Your task to perform on an android device: change timer sound Image 0: 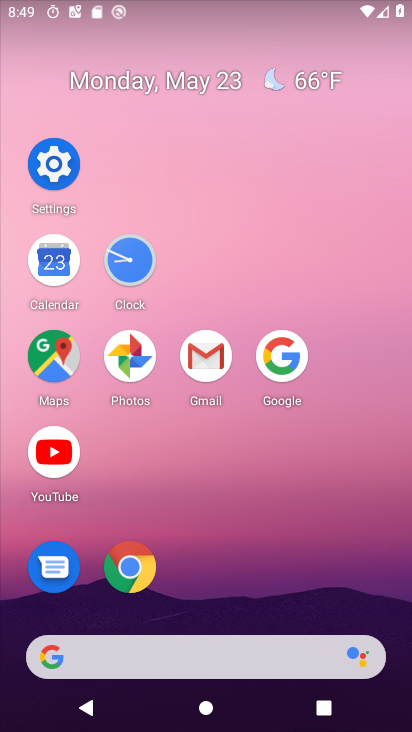
Step 0: click (145, 251)
Your task to perform on an android device: change timer sound Image 1: 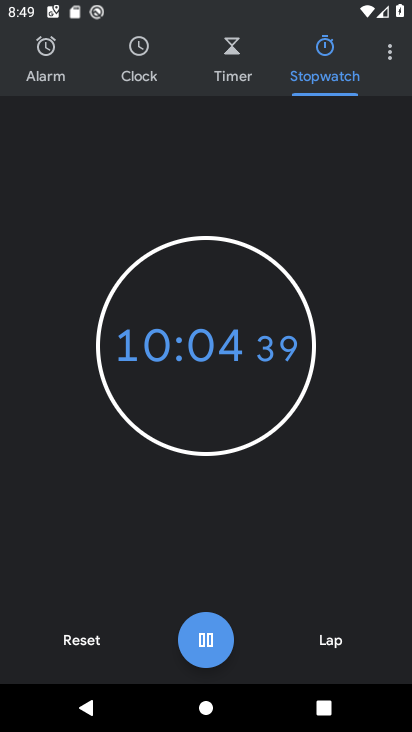
Step 1: click (390, 47)
Your task to perform on an android device: change timer sound Image 2: 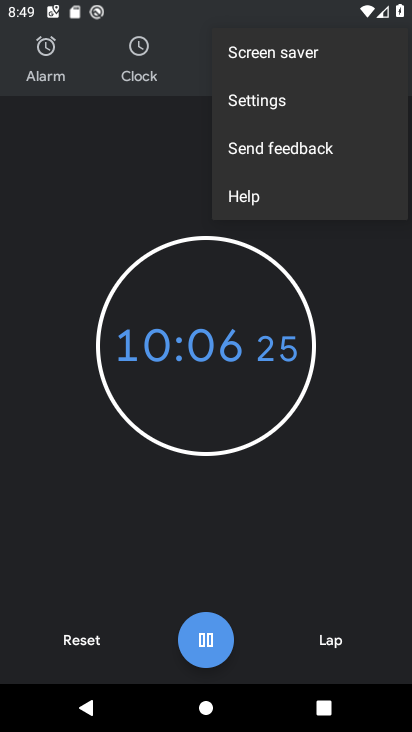
Step 2: click (261, 107)
Your task to perform on an android device: change timer sound Image 3: 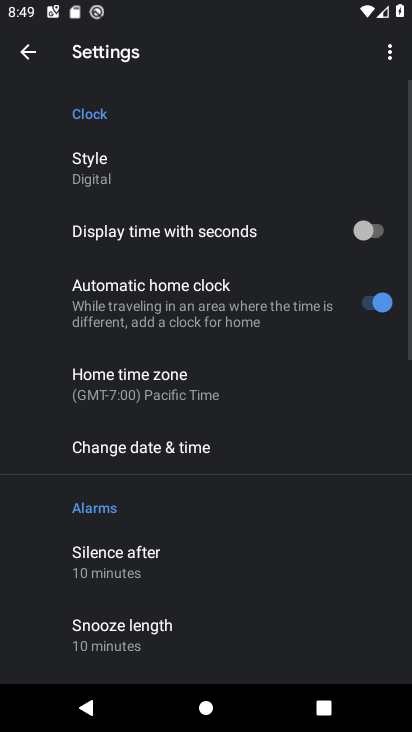
Step 3: drag from (179, 464) to (198, 130)
Your task to perform on an android device: change timer sound Image 4: 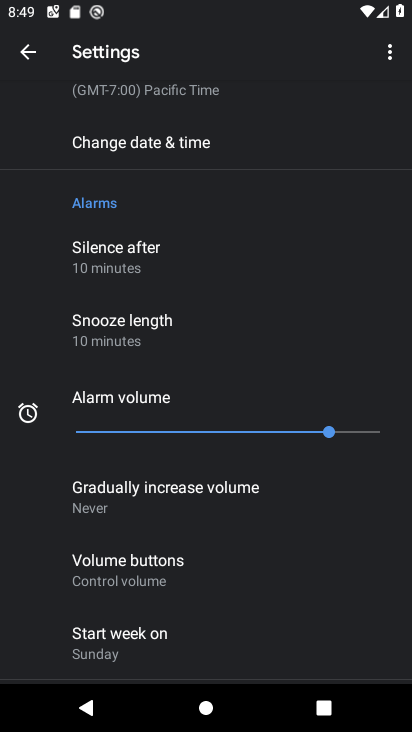
Step 4: drag from (152, 579) to (146, 215)
Your task to perform on an android device: change timer sound Image 5: 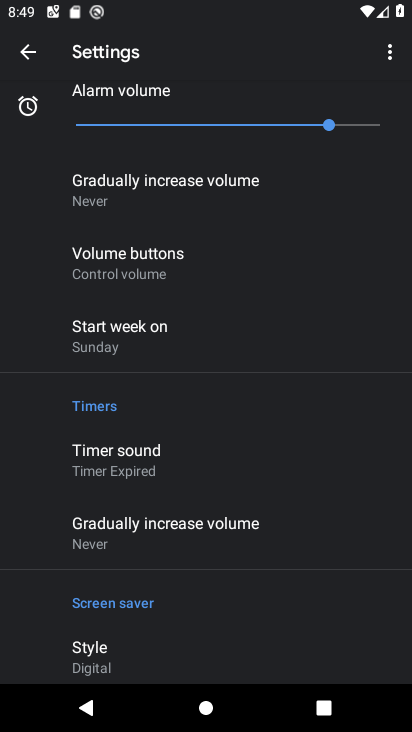
Step 5: click (156, 452)
Your task to perform on an android device: change timer sound Image 6: 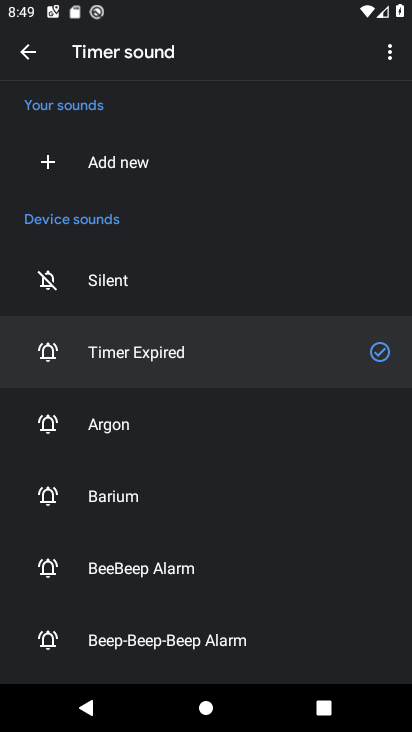
Step 6: click (77, 442)
Your task to perform on an android device: change timer sound Image 7: 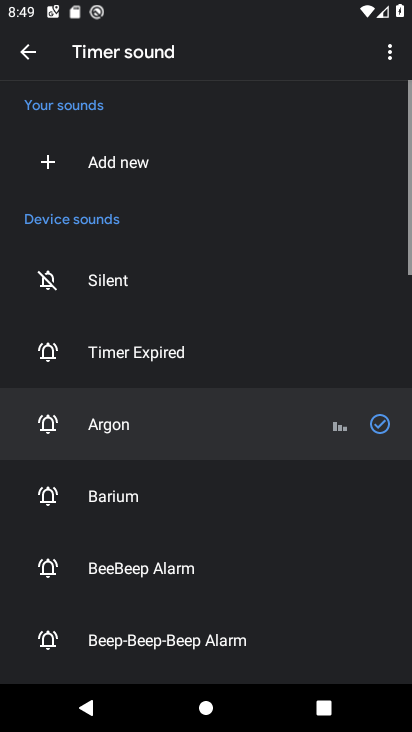
Step 7: task complete